Your task to perform on an android device: Open accessibility settings Image 0: 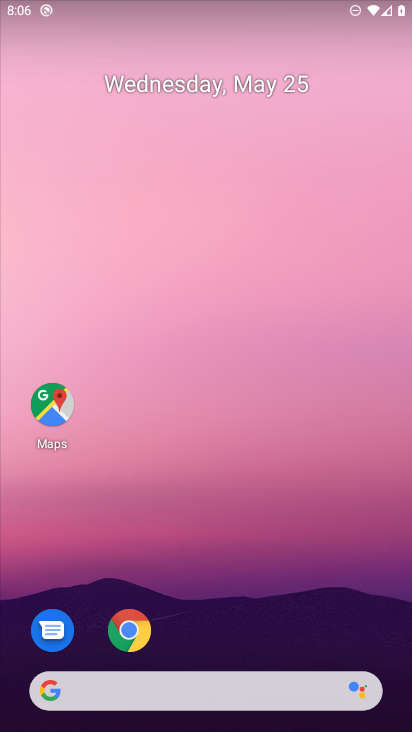
Step 0: drag from (234, 644) to (272, 446)
Your task to perform on an android device: Open accessibility settings Image 1: 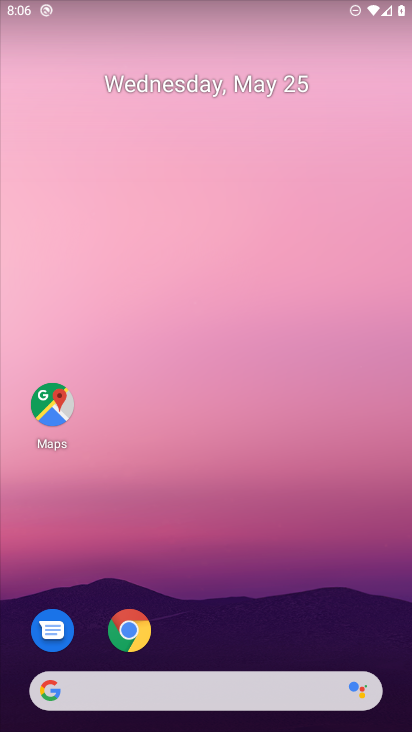
Step 1: drag from (202, 663) to (307, 210)
Your task to perform on an android device: Open accessibility settings Image 2: 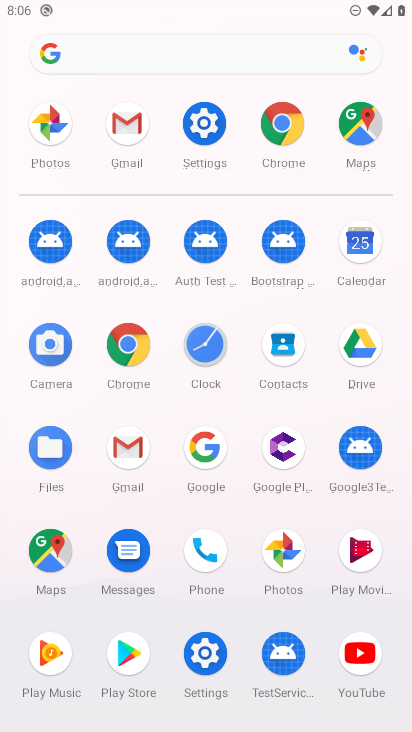
Step 2: click (201, 110)
Your task to perform on an android device: Open accessibility settings Image 3: 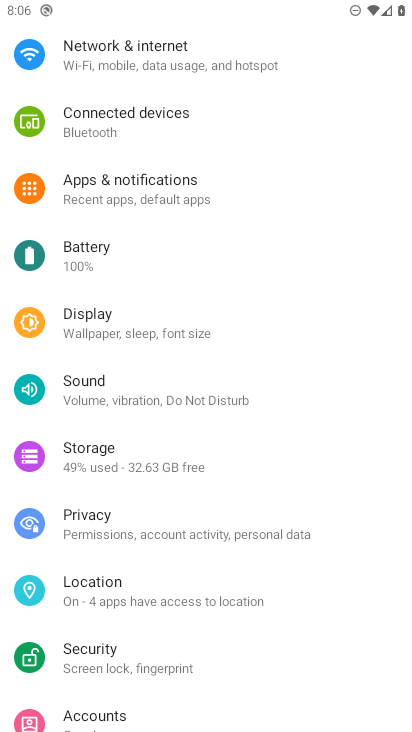
Step 3: drag from (86, 693) to (146, 454)
Your task to perform on an android device: Open accessibility settings Image 4: 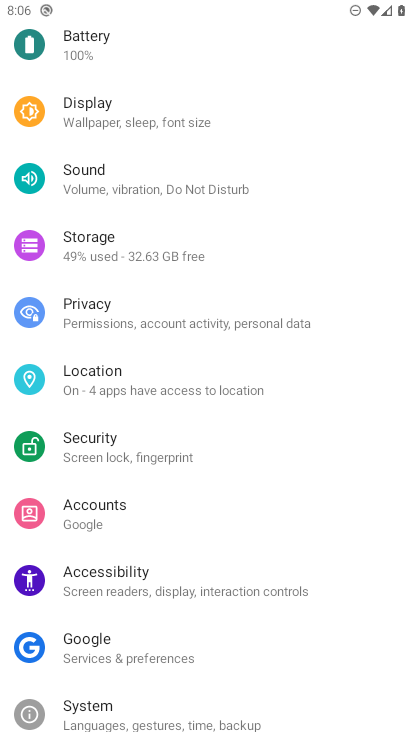
Step 4: click (119, 583)
Your task to perform on an android device: Open accessibility settings Image 5: 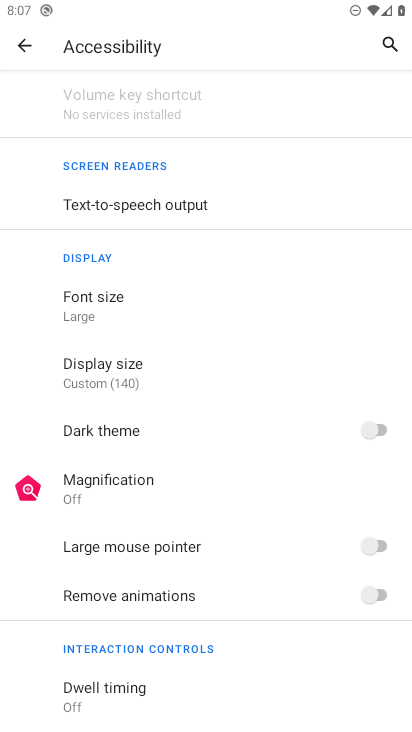
Step 5: task complete